Your task to perform on an android device: Go to battery settings Image 0: 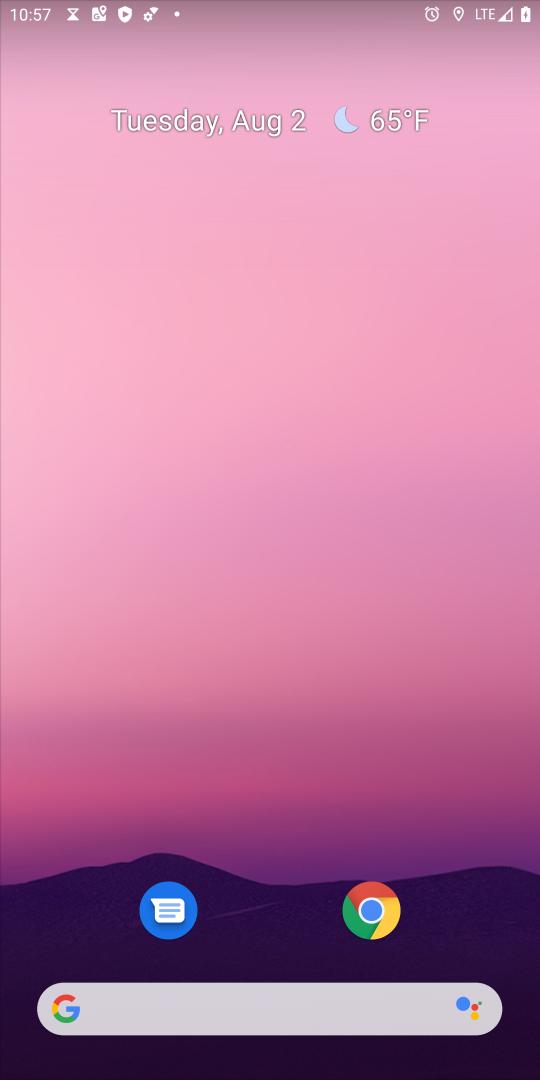
Step 0: drag from (230, 958) to (300, 348)
Your task to perform on an android device: Go to battery settings Image 1: 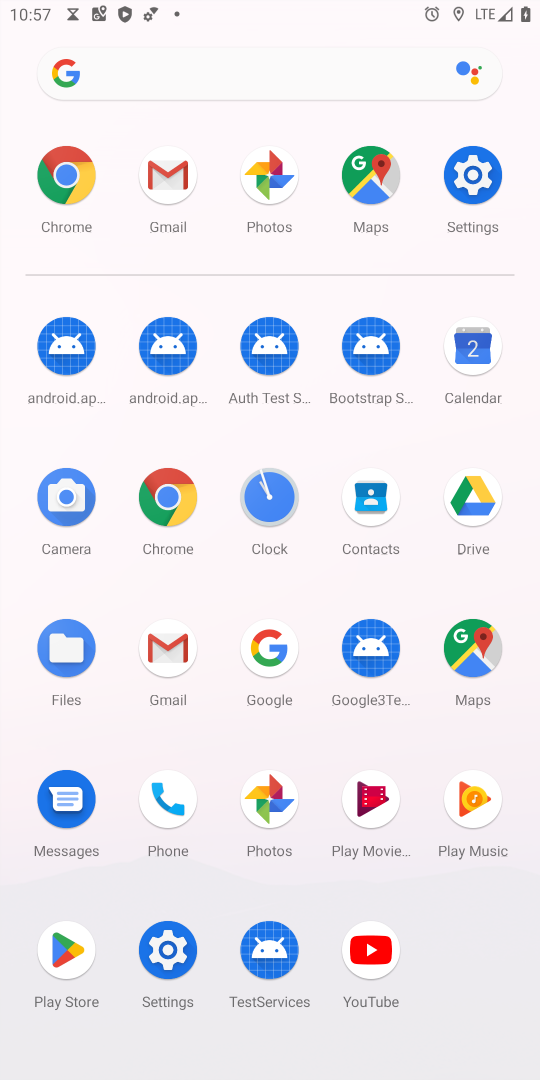
Step 1: click (475, 153)
Your task to perform on an android device: Go to battery settings Image 2: 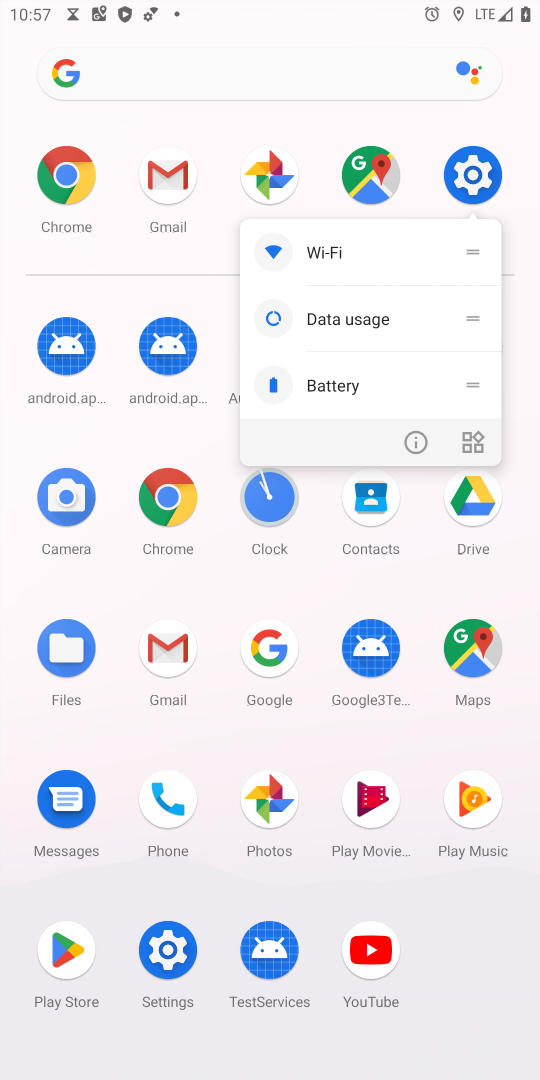
Step 2: click (475, 176)
Your task to perform on an android device: Go to battery settings Image 3: 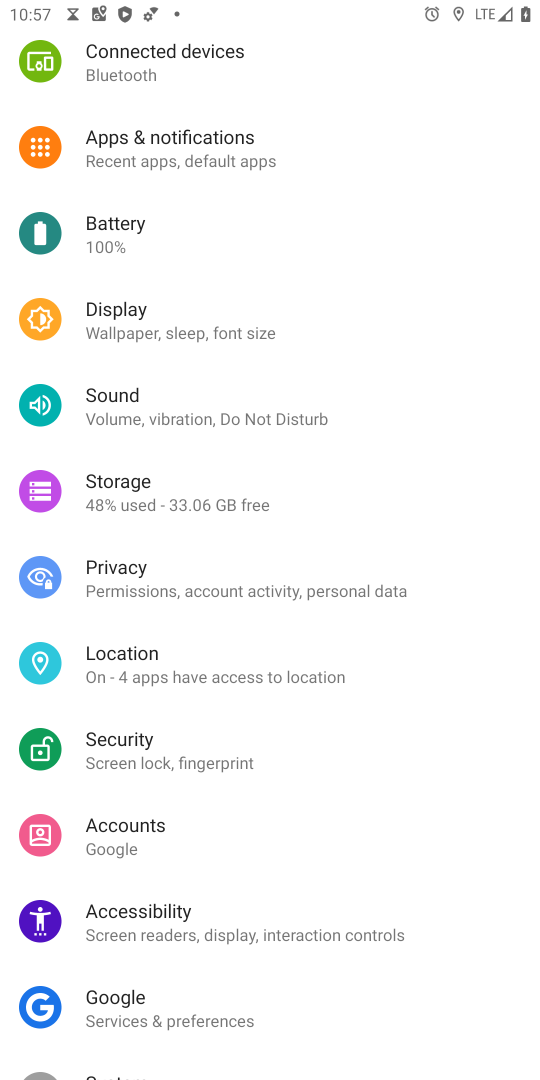
Step 3: click (160, 228)
Your task to perform on an android device: Go to battery settings Image 4: 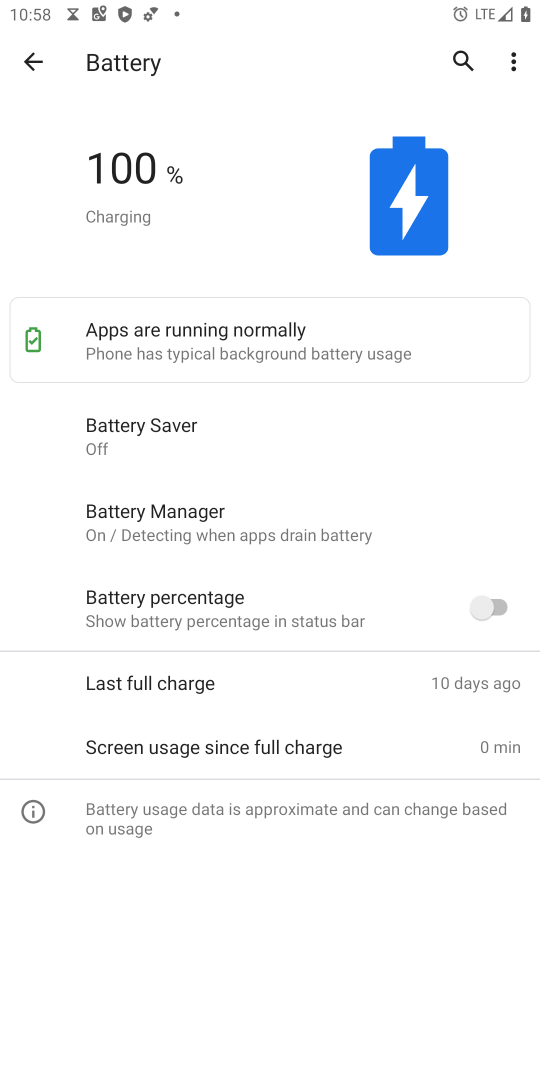
Step 4: task complete